Your task to perform on an android device: Go to location settings Image 0: 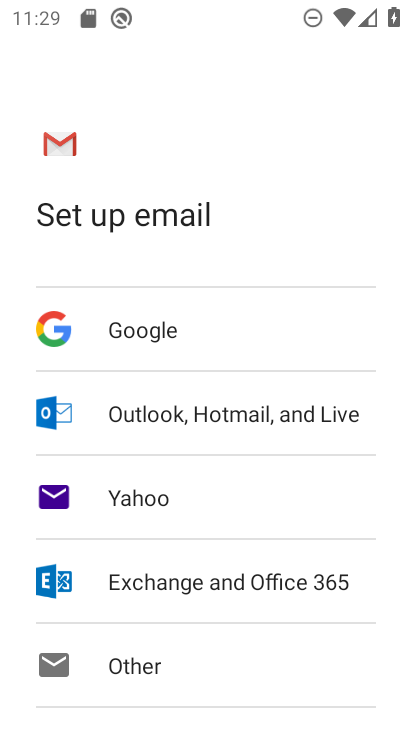
Step 0: press home button
Your task to perform on an android device: Go to location settings Image 1: 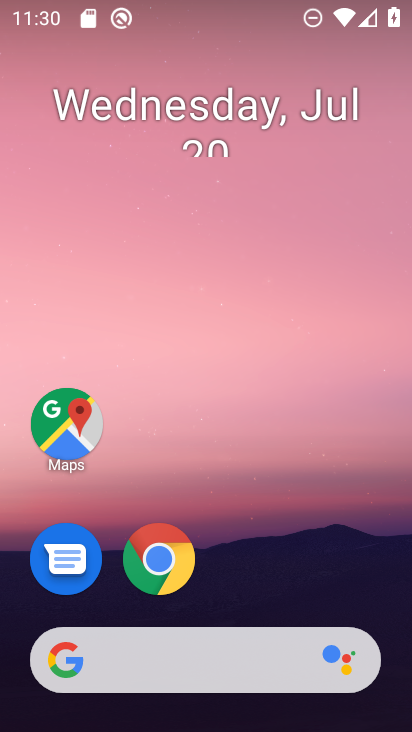
Step 1: drag from (188, 376) to (149, 42)
Your task to perform on an android device: Go to location settings Image 2: 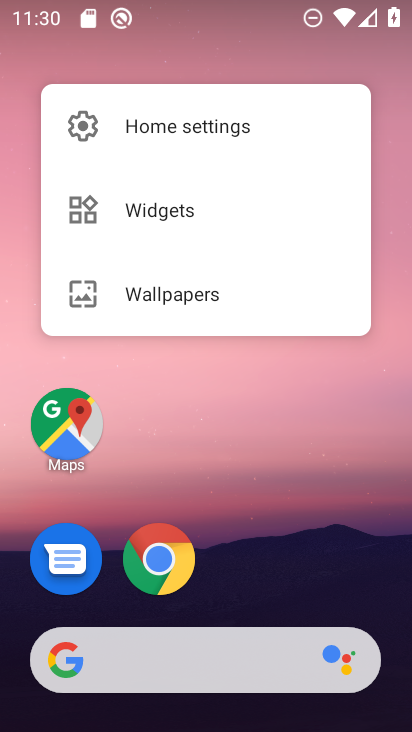
Step 2: click (286, 472)
Your task to perform on an android device: Go to location settings Image 3: 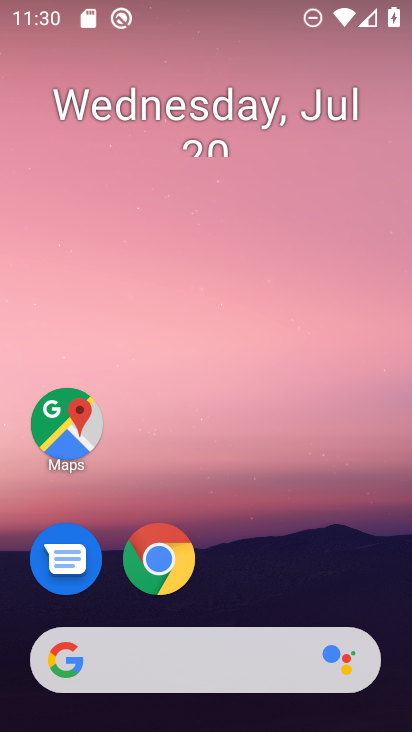
Step 3: drag from (207, 652) to (203, 53)
Your task to perform on an android device: Go to location settings Image 4: 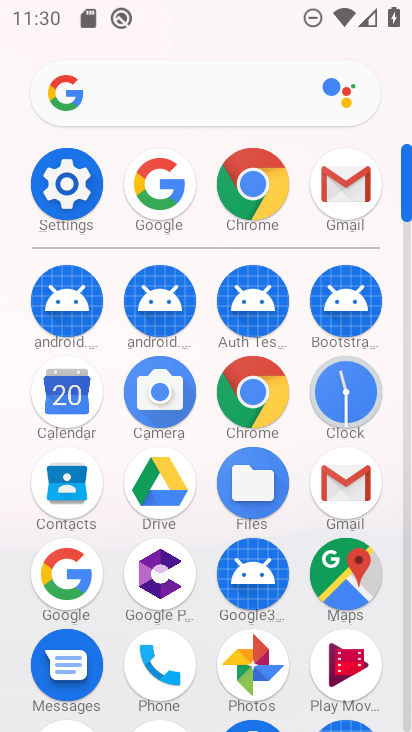
Step 4: click (79, 200)
Your task to perform on an android device: Go to location settings Image 5: 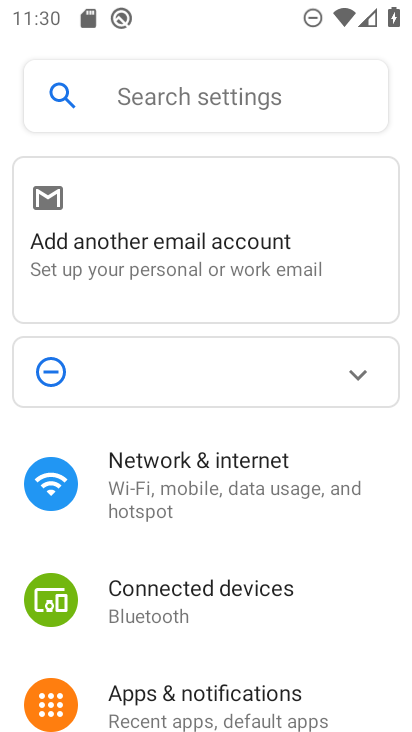
Step 5: drag from (105, 499) to (103, 216)
Your task to perform on an android device: Go to location settings Image 6: 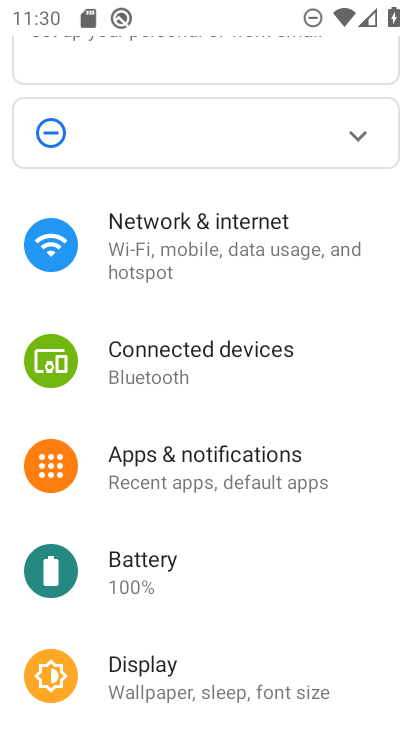
Step 6: drag from (226, 625) to (189, 271)
Your task to perform on an android device: Go to location settings Image 7: 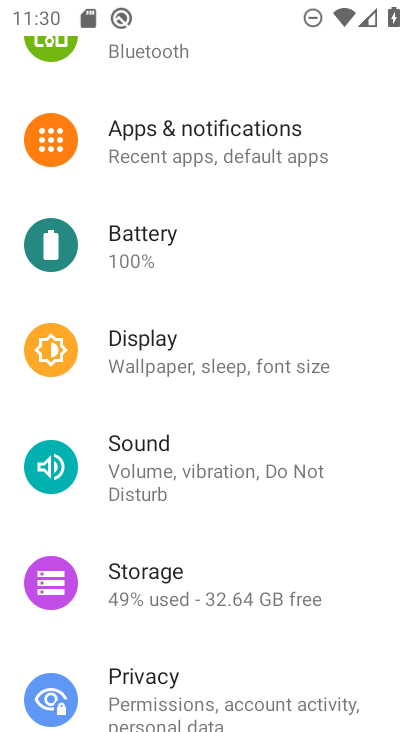
Step 7: drag from (185, 608) to (170, 409)
Your task to perform on an android device: Go to location settings Image 8: 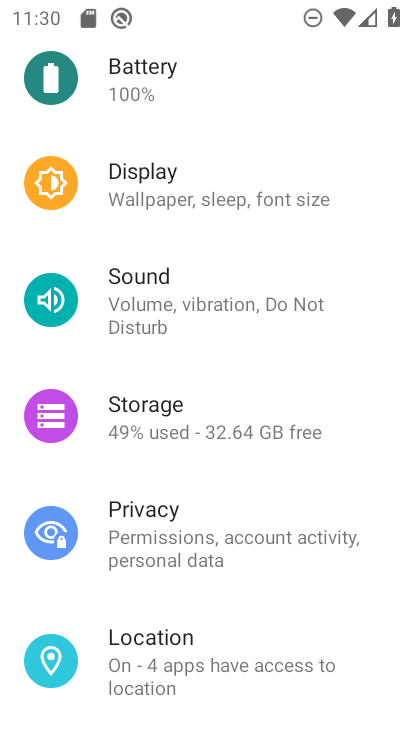
Step 8: click (172, 660)
Your task to perform on an android device: Go to location settings Image 9: 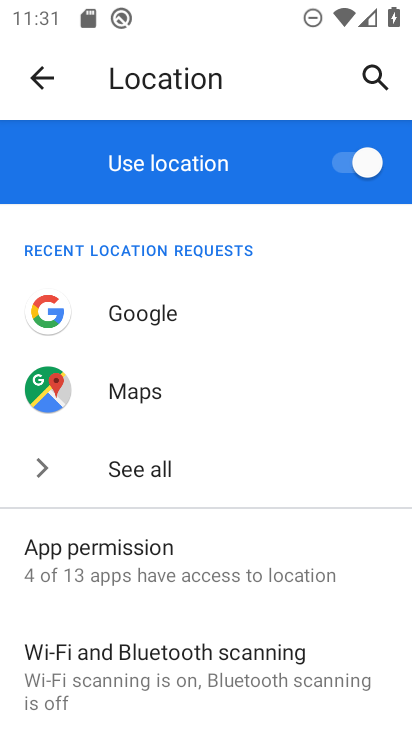
Step 9: task complete